Your task to perform on an android device: Go to wifi settings Image 0: 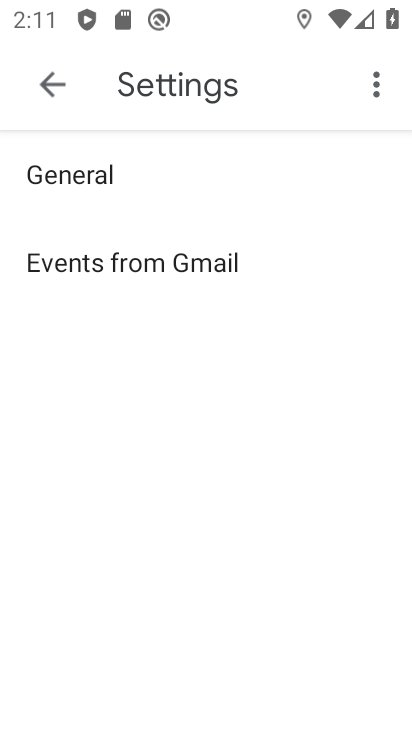
Step 0: press home button
Your task to perform on an android device: Go to wifi settings Image 1: 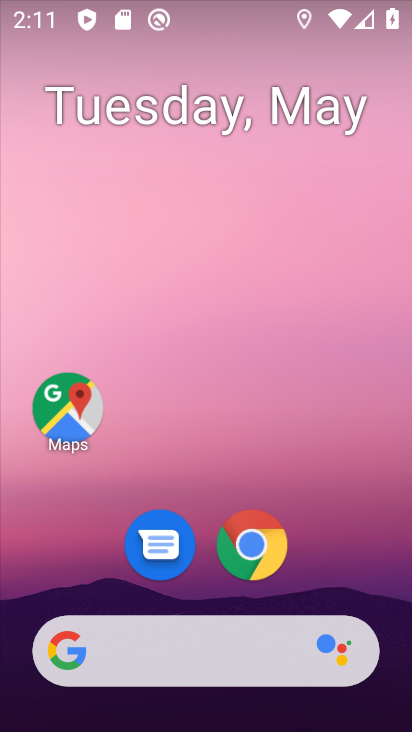
Step 1: drag from (202, 546) to (244, 53)
Your task to perform on an android device: Go to wifi settings Image 2: 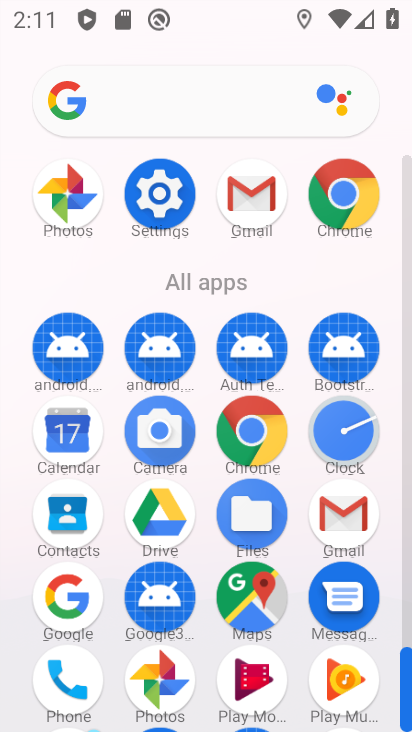
Step 2: click (159, 207)
Your task to perform on an android device: Go to wifi settings Image 3: 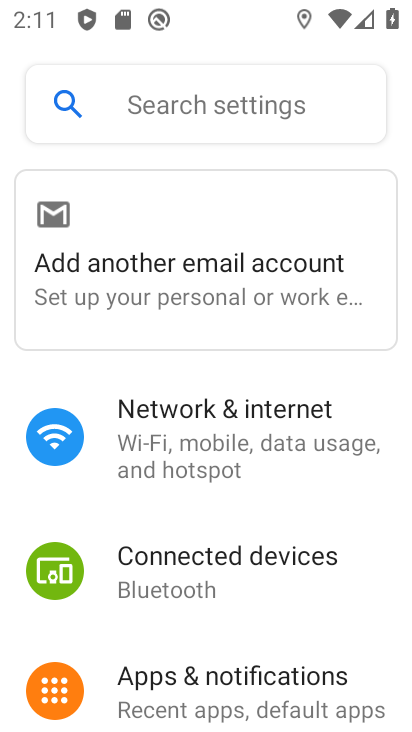
Step 3: click (202, 411)
Your task to perform on an android device: Go to wifi settings Image 4: 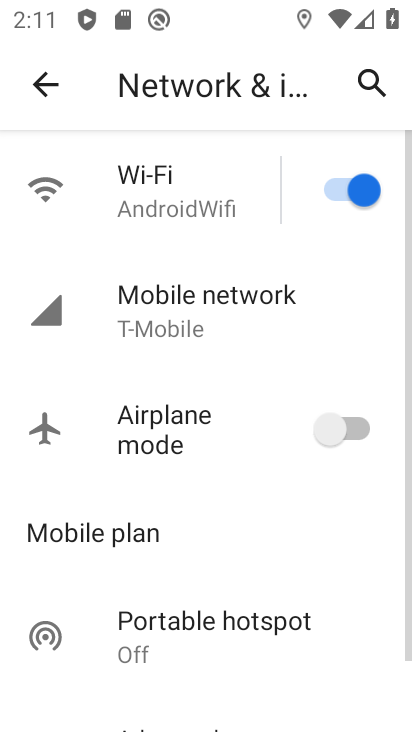
Step 4: click (176, 173)
Your task to perform on an android device: Go to wifi settings Image 5: 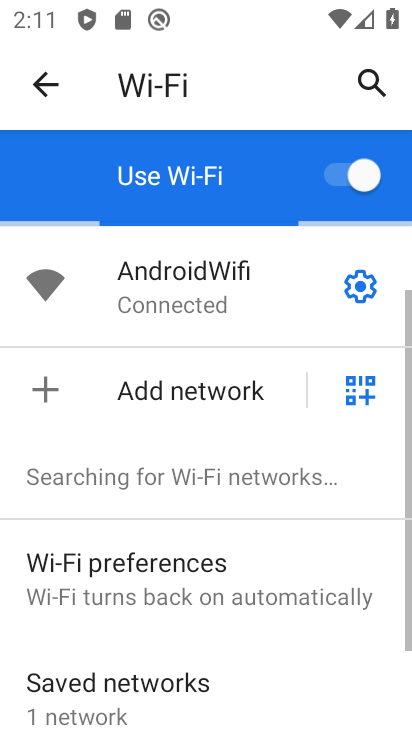
Step 5: task complete